Your task to perform on an android device: Turn on the flashlight Image 0: 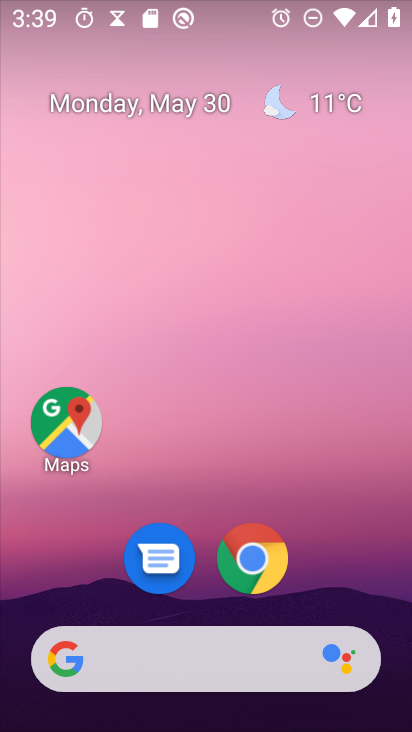
Step 0: drag from (183, 497) to (213, 32)
Your task to perform on an android device: Turn on the flashlight Image 1: 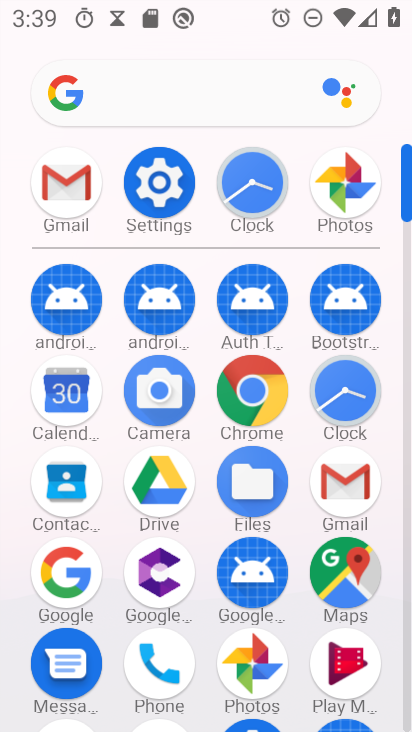
Step 1: click (164, 181)
Your task to perform on an android device: Turn on the flashlight Image 2: 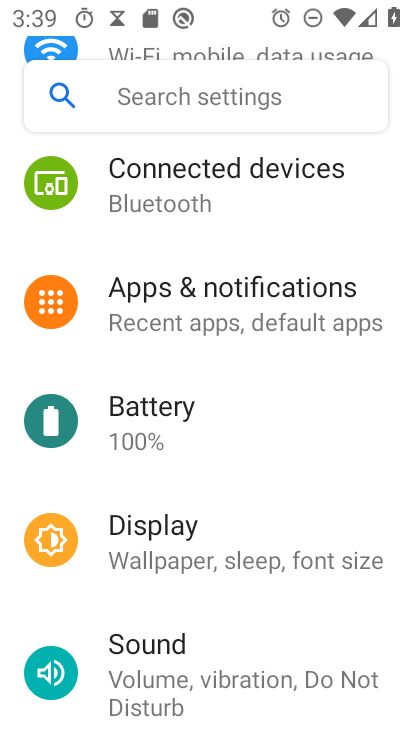
Step 2: click (177, 94)
Your task to perform on an android device: Turn on the flashlight Image 3: 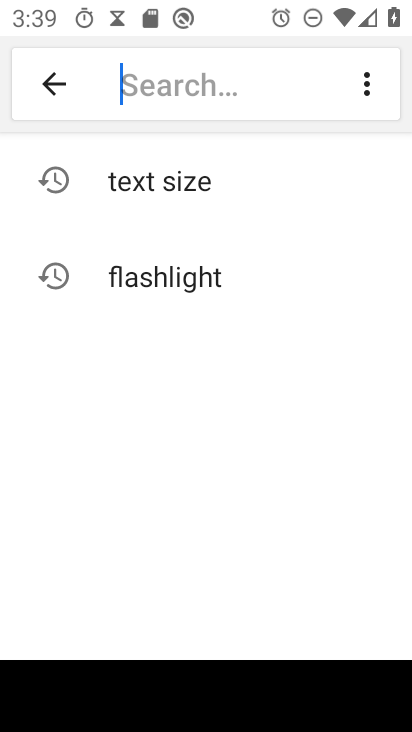
Step 3: type "flashlight"
Your task to perform on an android device: Turn on the flashlight Image 4: 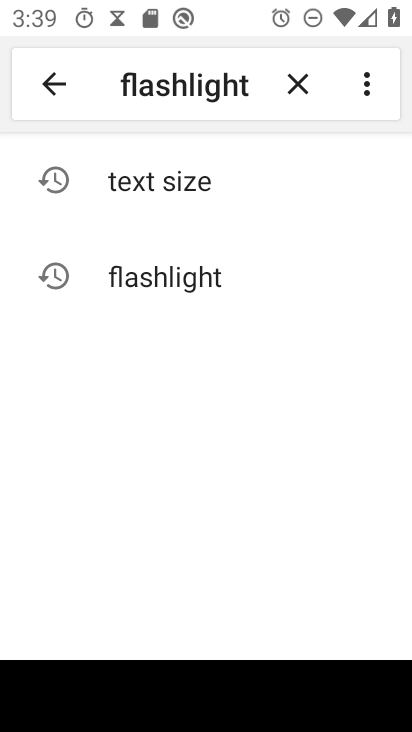
Step 4: click (173, 272)
Your task to perform on an android device: Turn on the flashlight Image 5: 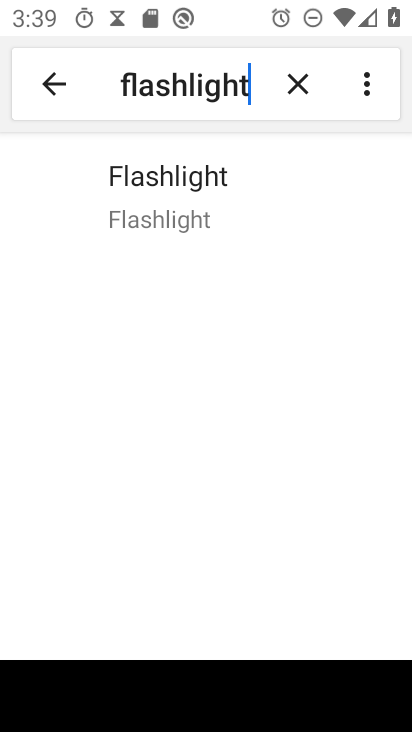
Step 5: click (190, 190)
Your task to perform on an android device: Turn on the flashlight Image 6: 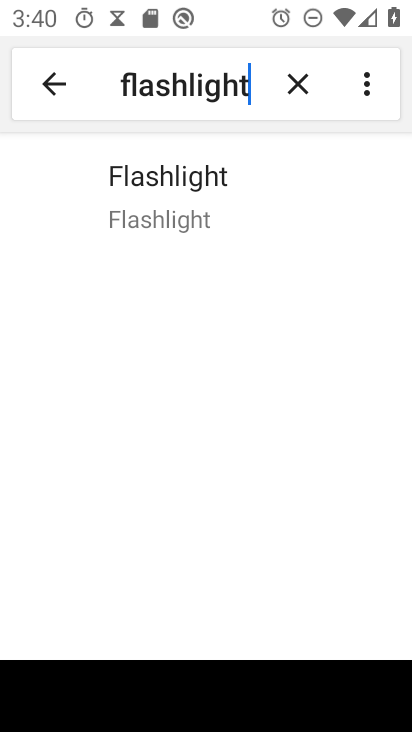
Step 6: task complete